Your task to perform on an android device: Open Google Chrome and open the bookmarks view Image 0: 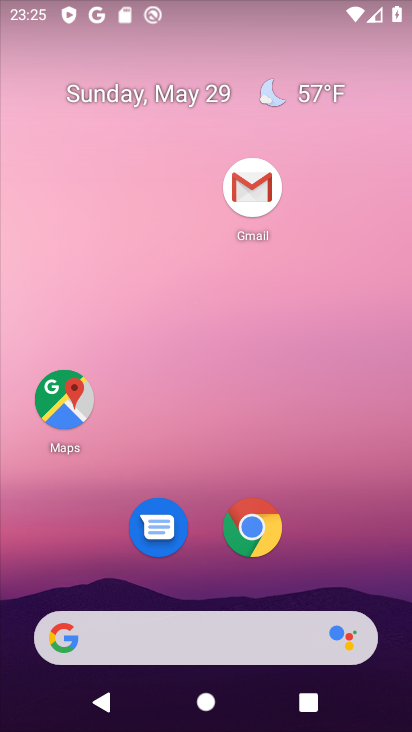
Step 0: click (253, 528)
Your task to perform on an android device: Open Google Chrome and open the bookmarks view Image 1: 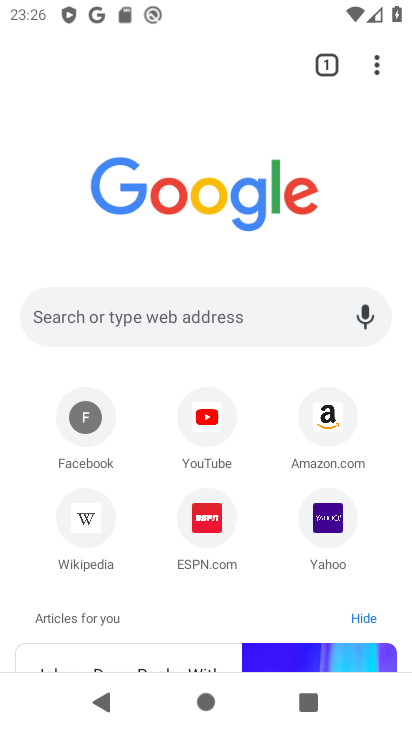
Step 1: click (378, 65)
Your task to perform on an android device: Open Google Chrome and open the bookmarks view Image 2: 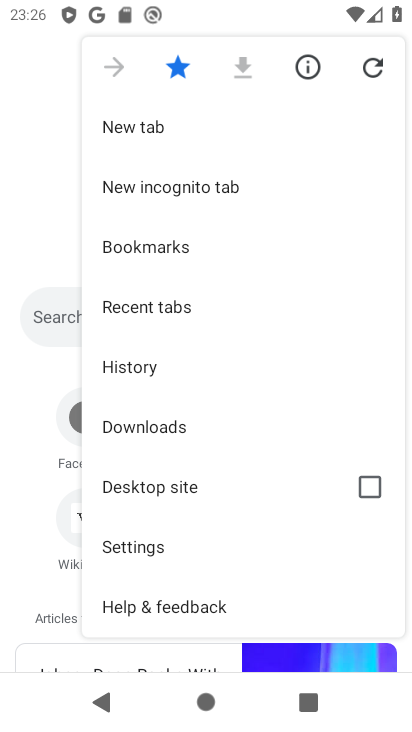
Step 2: drag from (169, 527) to (224, 408)
Your task to perform on an android device: Open Google Chrome and open the bookmarks view Image 3: 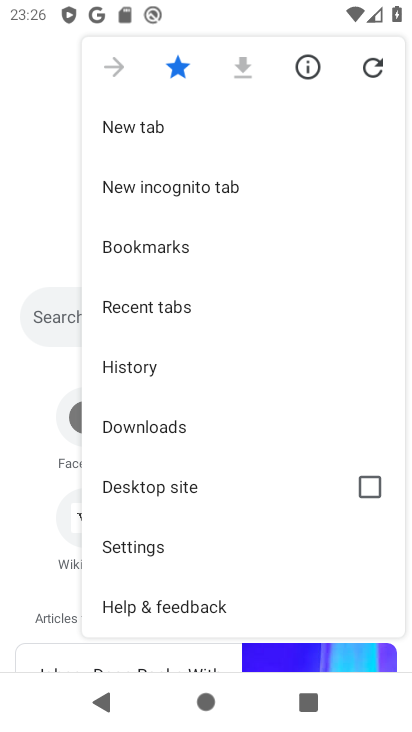
Step 3: click (157, 250)
Your task to perform on an android device: Open Google Chrome and open the bookmarks view Image 4: 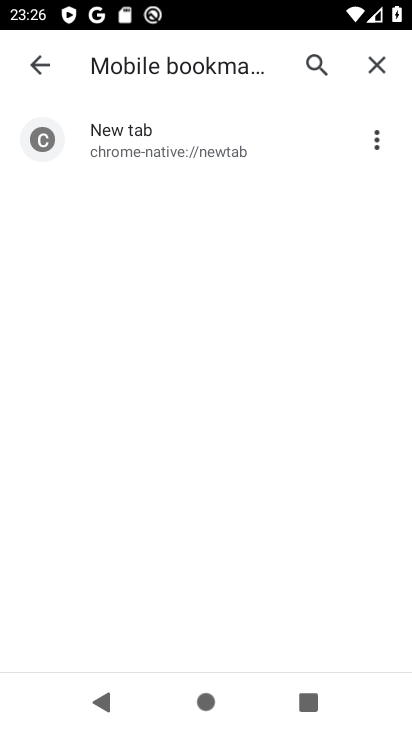
Step 4: task complete